Your task to perform on an android device: read, delete, or share a saved page in the chrome app Image 0: 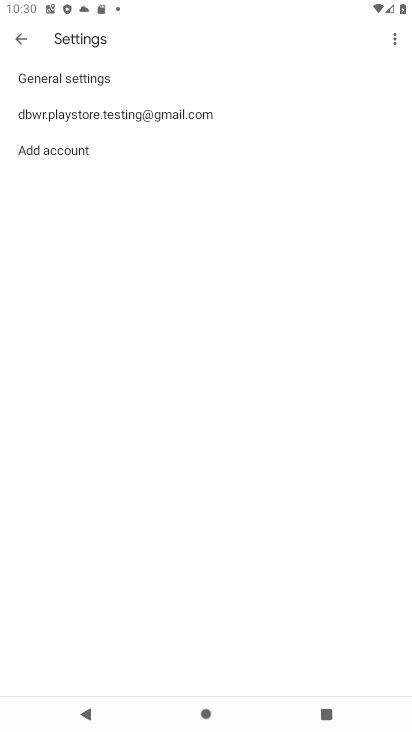
Step 0: press home button
Your task to perform on an android device: read, delete, or share a saved page in the chrome app Image 1: 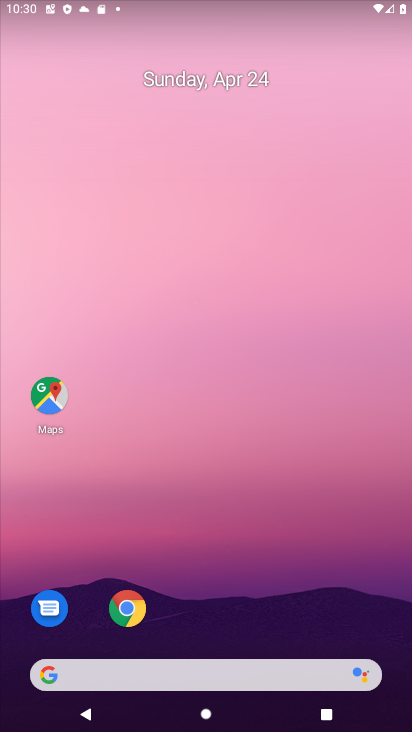
Step 1: drag from (304, 589) to (313, 79)
Your task to perform on an android device: read, delete, or share a saved page in the chrome app Image 2: 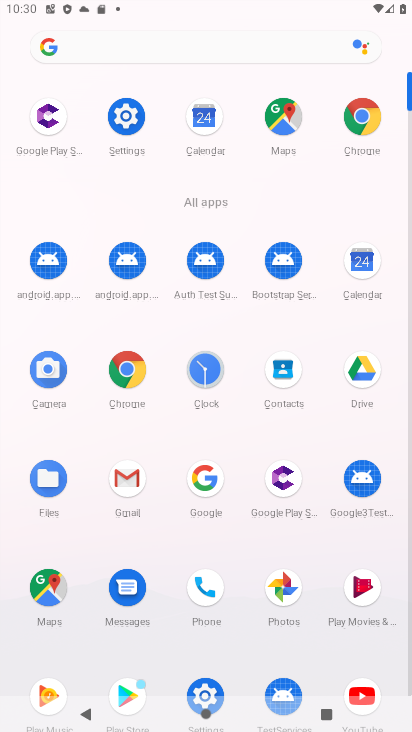
Step 2: click (119, 376)
Your task to perform on an android device: read, delete, or share a saved page in the chrome app Image 3: 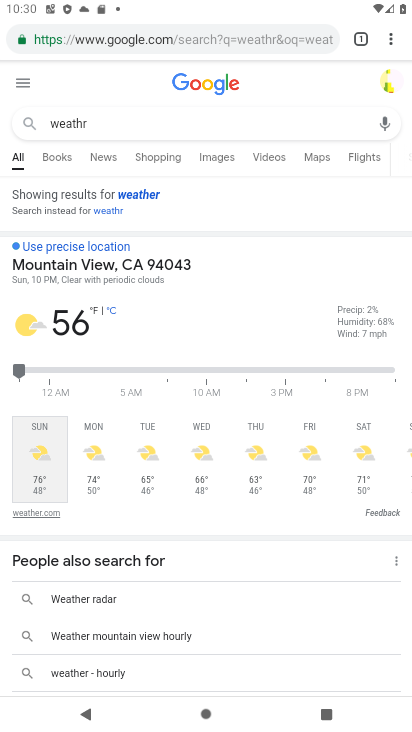
Step 3: task complete